Your task to perform on an android device: turn off improve location accuracy Image 0: 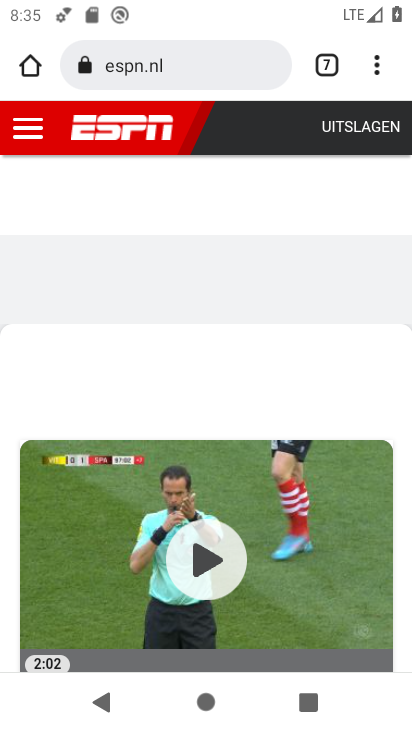
Step 0: press home button
Your task to perform on an android device: turn off improve location accuracy Image 1: 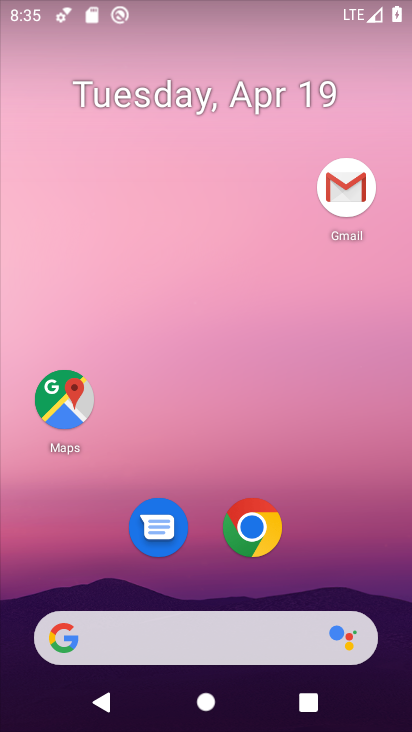
Step 1: drag from (372, 547) to (314, 134)
Your task to perform on an android device: turn off improve location accuracy Image 2: 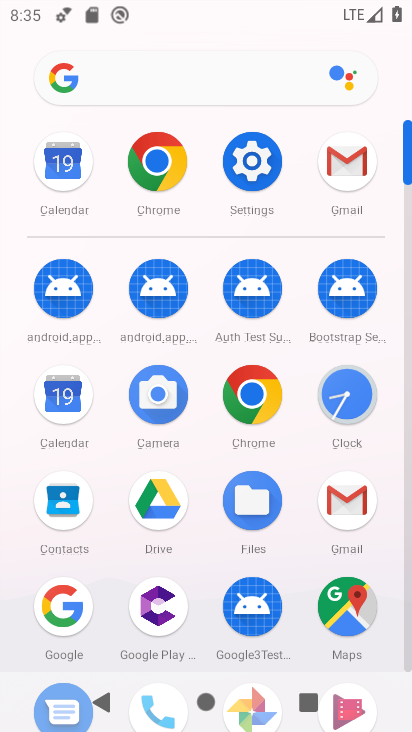
Step 2: click (252, 178)
Your task to perform on an android device: turn off improve location accuracy Image 3: 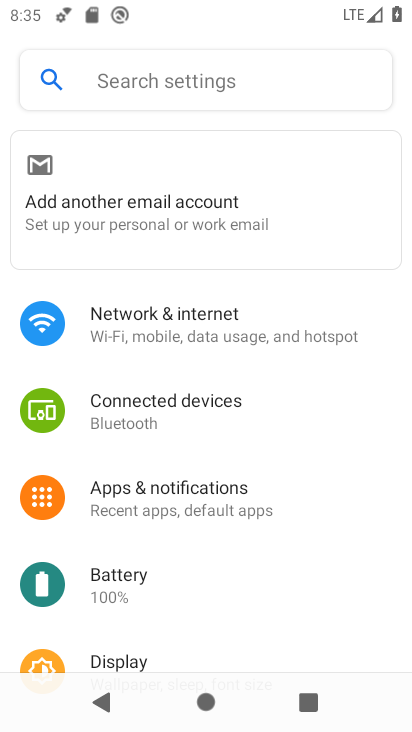
Step 3: drag from (182, 601) to (260, 282)
Your task to perform on an android device: turn off improve location accuracy Image 4: 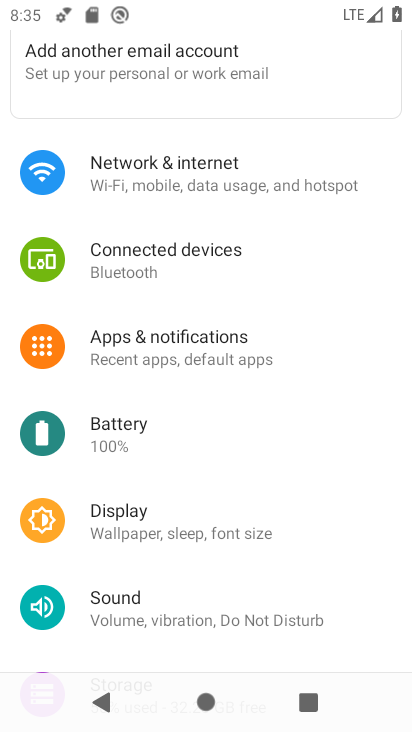
Step 4: drag from (317, 460) to (331, 189)
Your task to perform on an android device: turn off improve location accuracy Image 5: 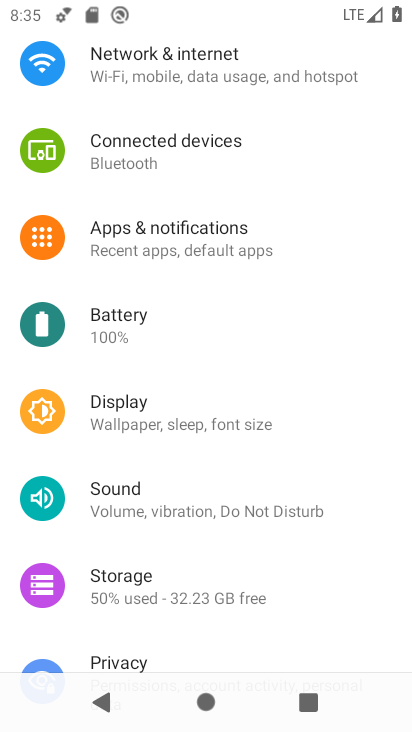
Step 5: drag from (353, 536) to (317, 160)
Your task to perform on an android device: turn off improve location accuracy Image 6: 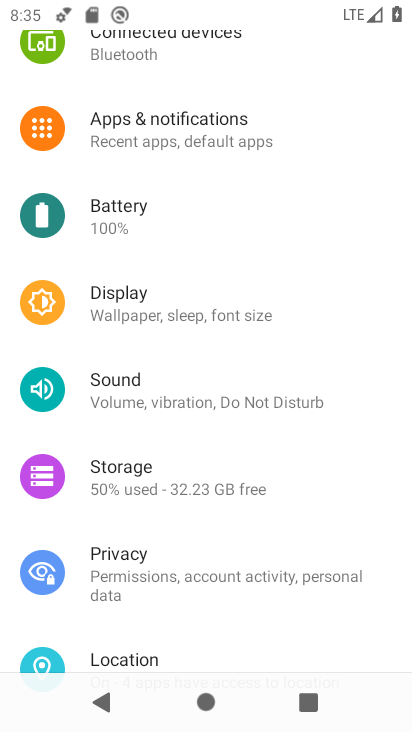
Step 6: drag from (290, 599) to (319, 204)
Your task to perform on an android device: turn off improve location accuracy Image 7: 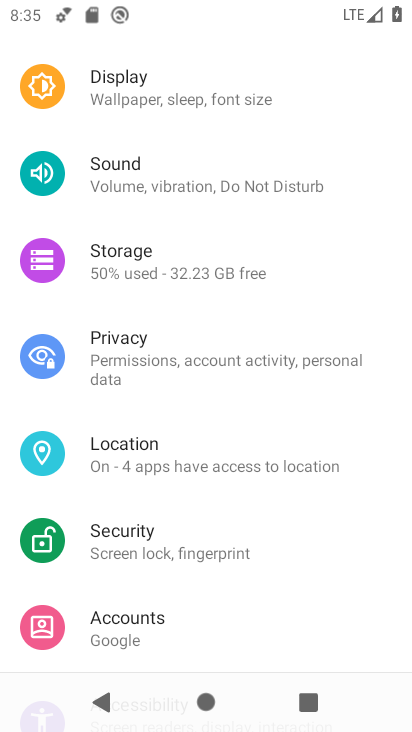
Step 7: click (133, 449)
Your task to perform on an android device: turn off improve location accuracy Image 8: 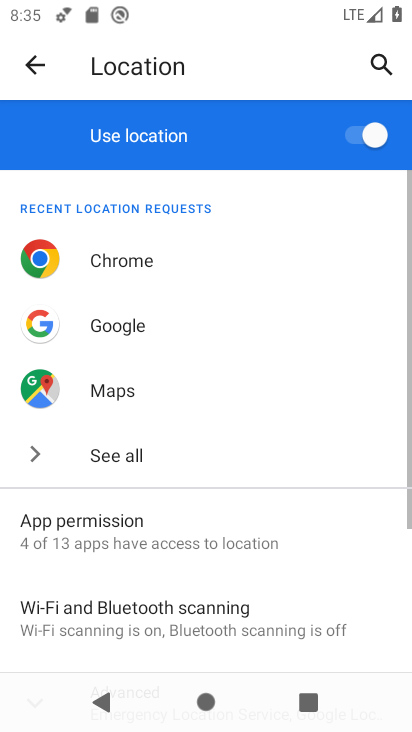
Step 8: drag from (332, 578) to (353, 246)
Your task to perform on an android device: turn off improve location accuracy Image 9: 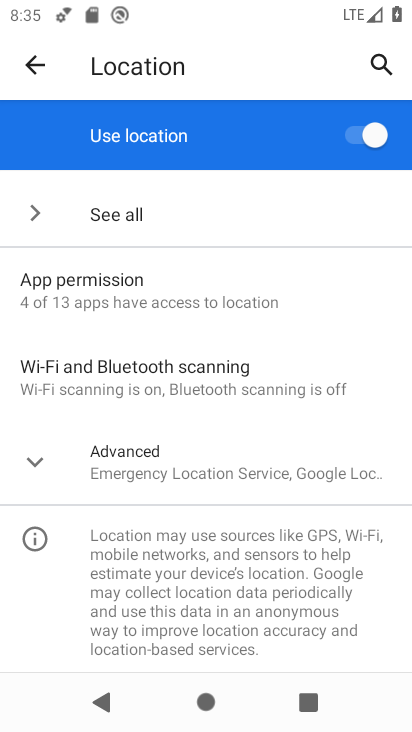
Step 9: click (234, 466)
Your task to perform on an android device: turn off improve location accuracy Image 10: 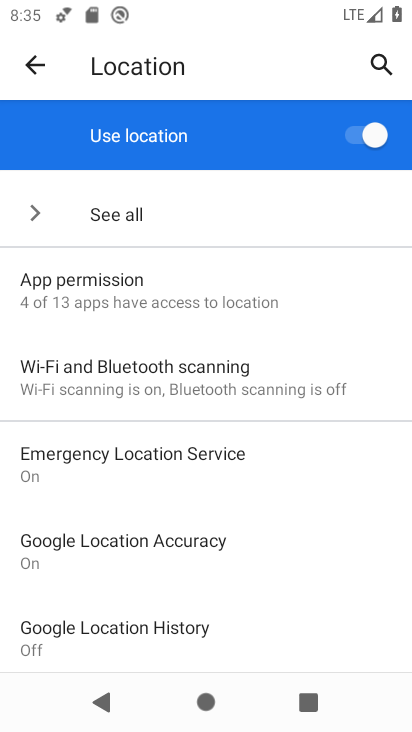
Step 10: drag from (296, 543) to (322, 256)
Your task to perform on an android device: turn off improve location accuracy Image 11: 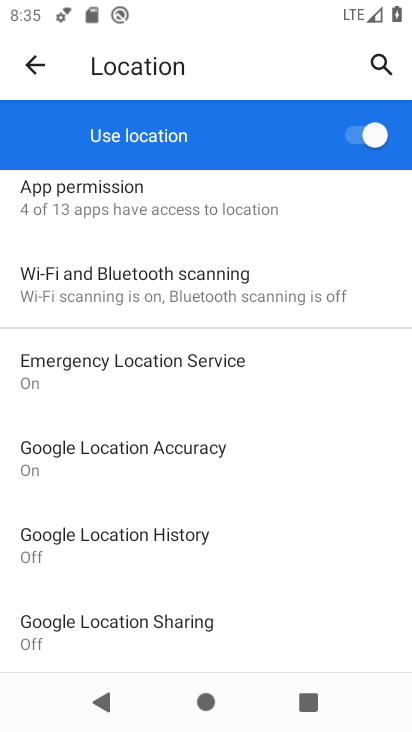
Step 11: click (144, 451)
Your task to perform on an android device: turn off improve location accuracy Image 12: 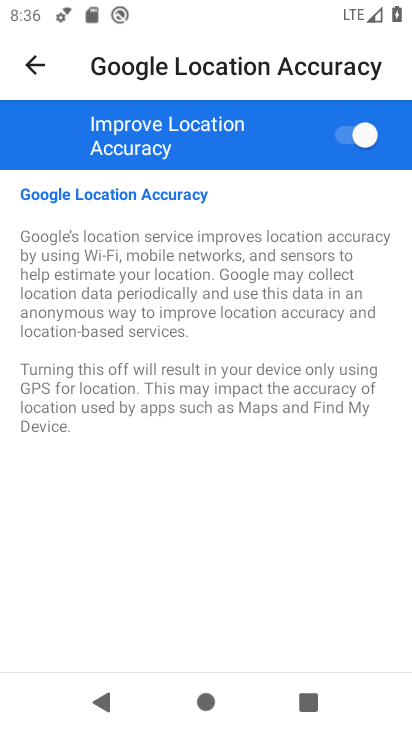
Step 12: click (342, 133)
Your task to perform on an android device: turn off improve location accuracy Image 13: 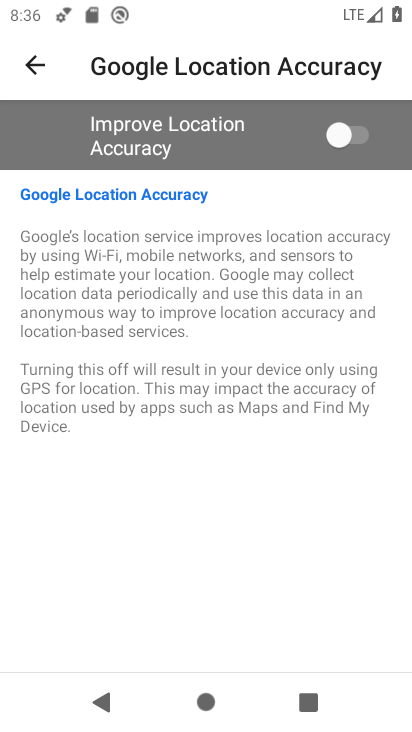
Step 13: task complete